Your task to perform on an android device: turn off translation in the chrome app Image 0: 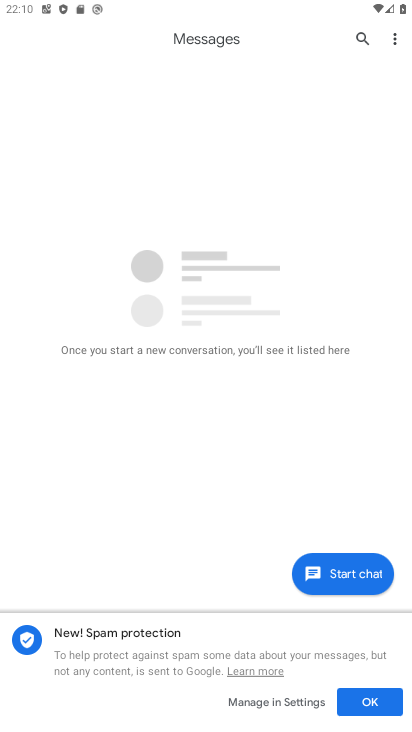
Step 0: press home button
Your task to perform on an android device: turn off translation in the chrome app Image 1: 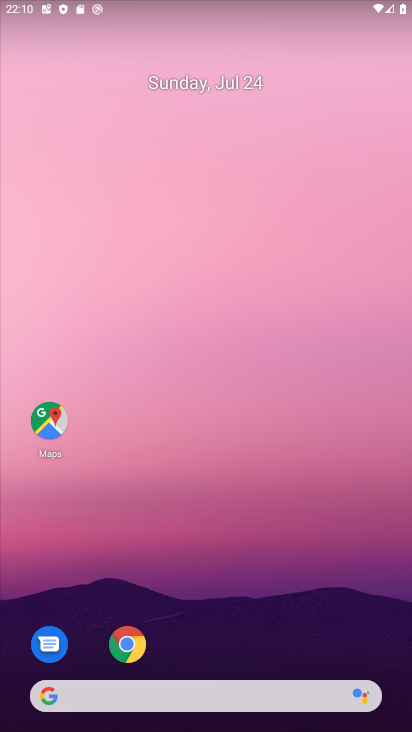
Step 1: click (127, 648)
Your task to perform on an android device: turn off translation in the chrome app Image 2: 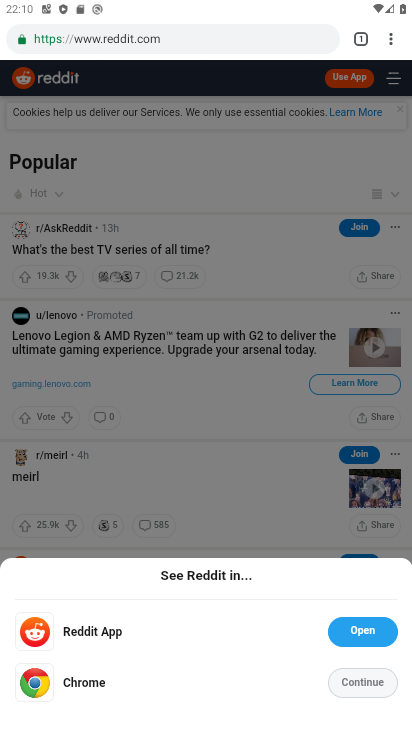
Step 2: click (391, 43)
Your task to perform on an android device: turn off translation in the chrome app Image 3: 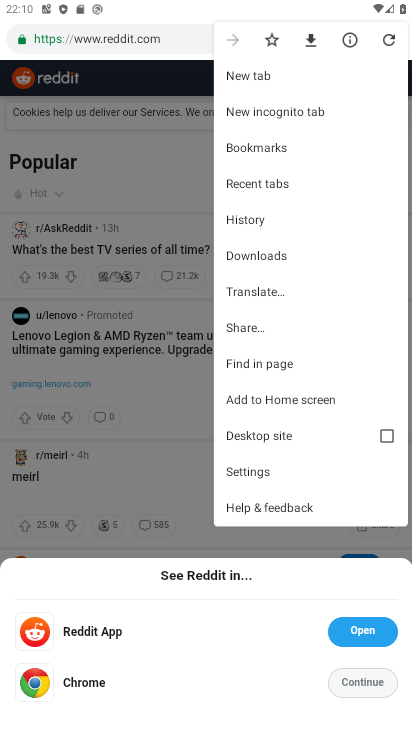
Step 3: click (248, 462)
Your task to perform on an android device: turn off translation in the chrome app Image 4: 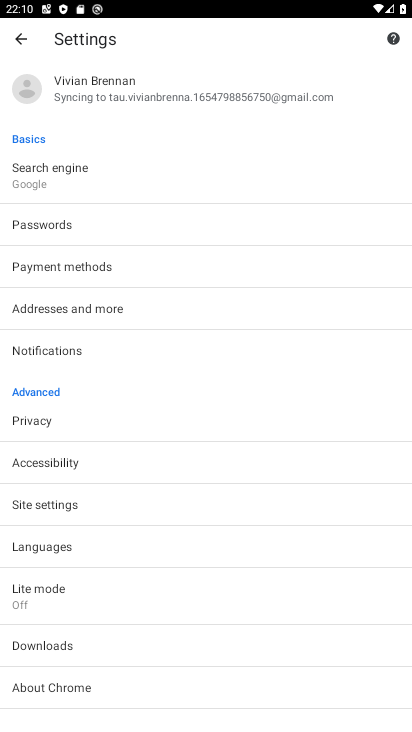
Step 4: click (43, 551)
Your task to perform on an android device: turn off translation in the chrome app Image 5: 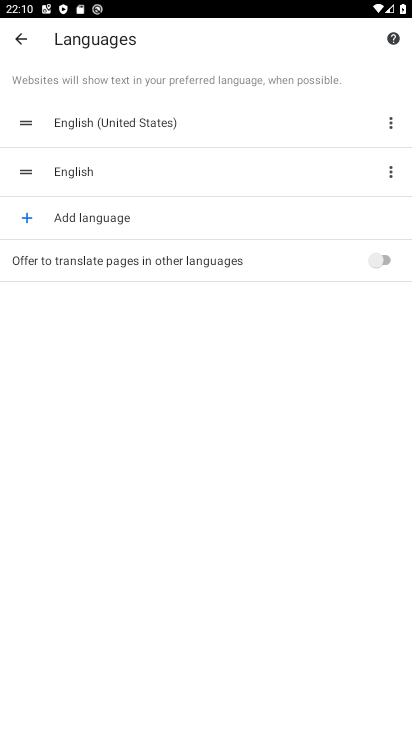
Step 5: task complete